Your task to perform on an android device: Add "razer nari" to the cart on amazon.com, then select checkout. Image 0: 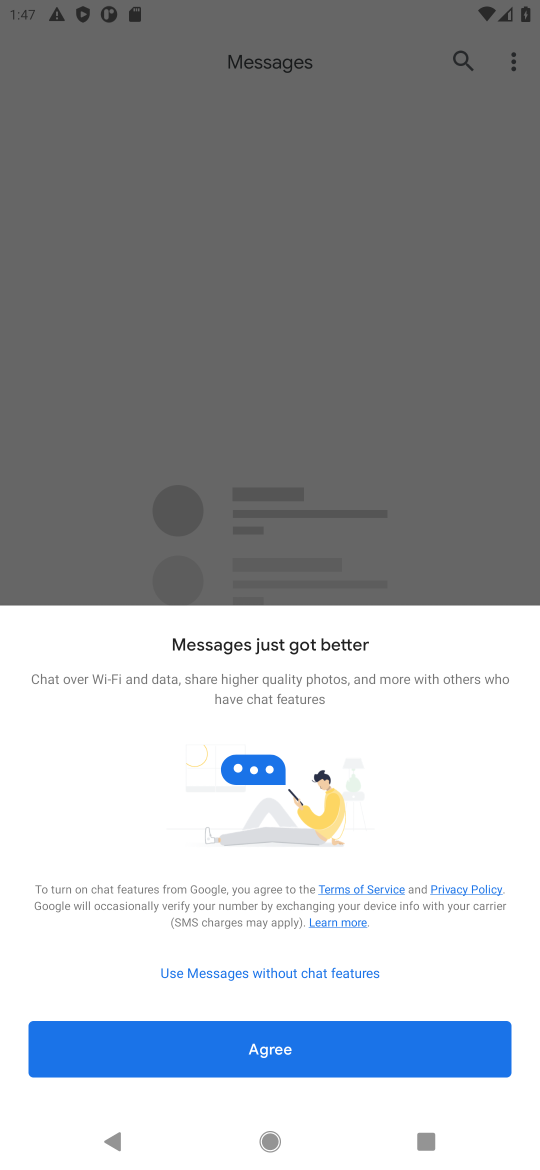
Step 0: press home button
Your task to perform on an android device: Add "razer nari" to the cart on amazon.com, then select checkout. Image 1: 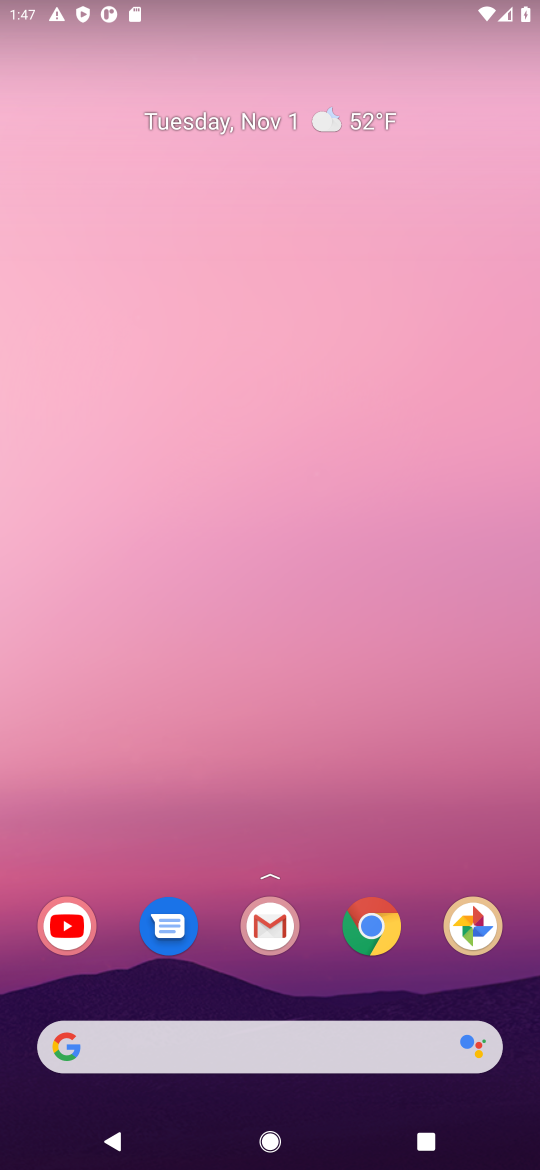
Step 1: click (369, 947)
Your task to perform on an android device: Add "razer nari" to the cart on amazon.com, then select checkout. Image 2: 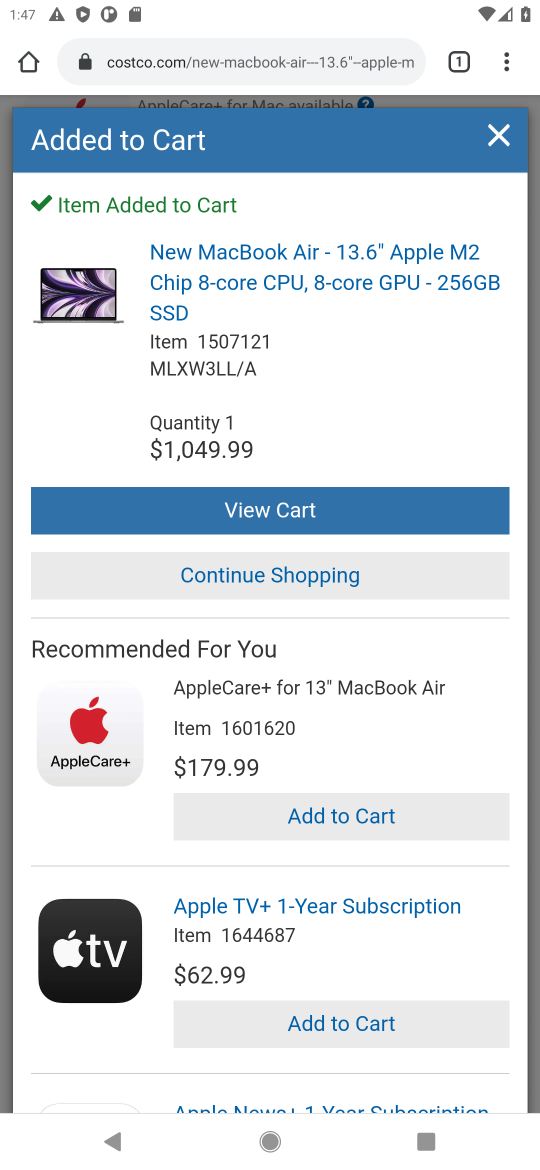
Step 2: click (272, 68)
Your task to perform on an android device: Add "razer nari" to the cart on amazon.com, then select checkout. Image 3: 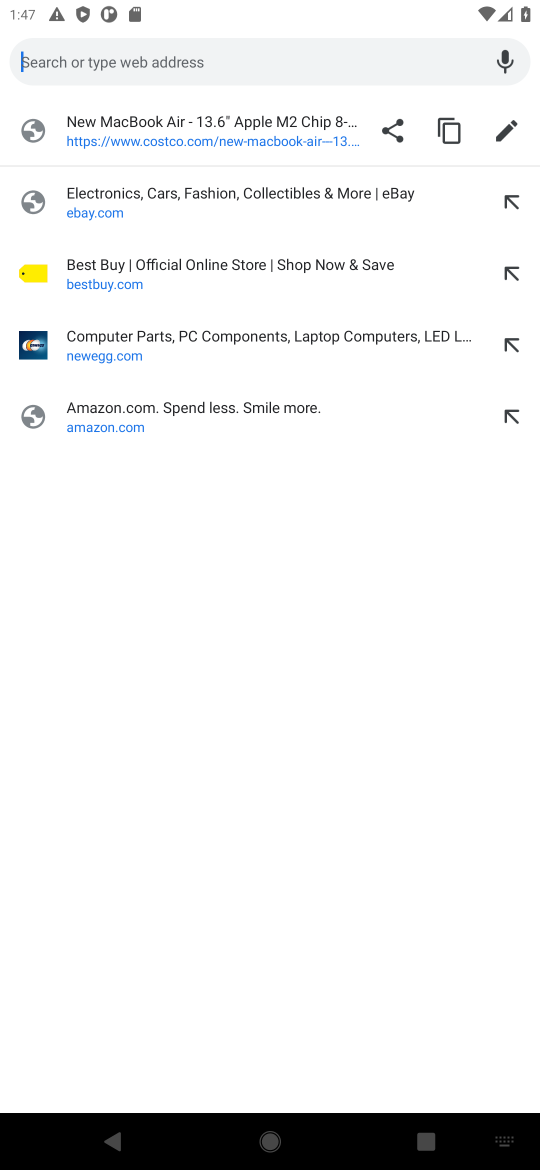
Step 3: type "amazon.com"
Your task to perform on an android device: Add "razer nari" to the cart on amazon.com, then select checkout. Image 4: 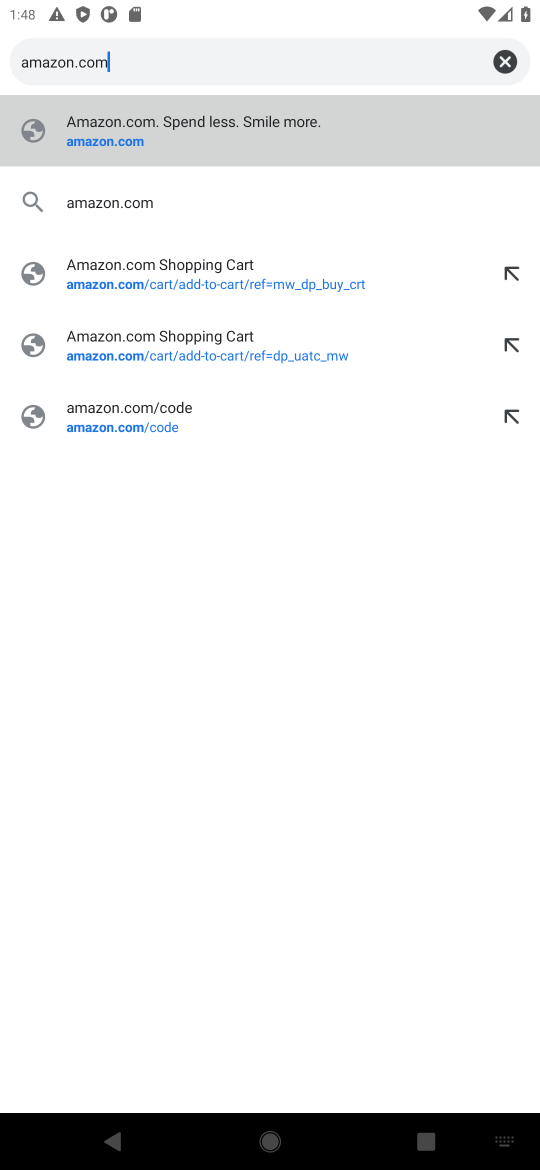
Step 4: click (250, 149)
Your task to perform on an android device: Add "razer nari" to the cart on amazon.com, then select checkout. Image 5: 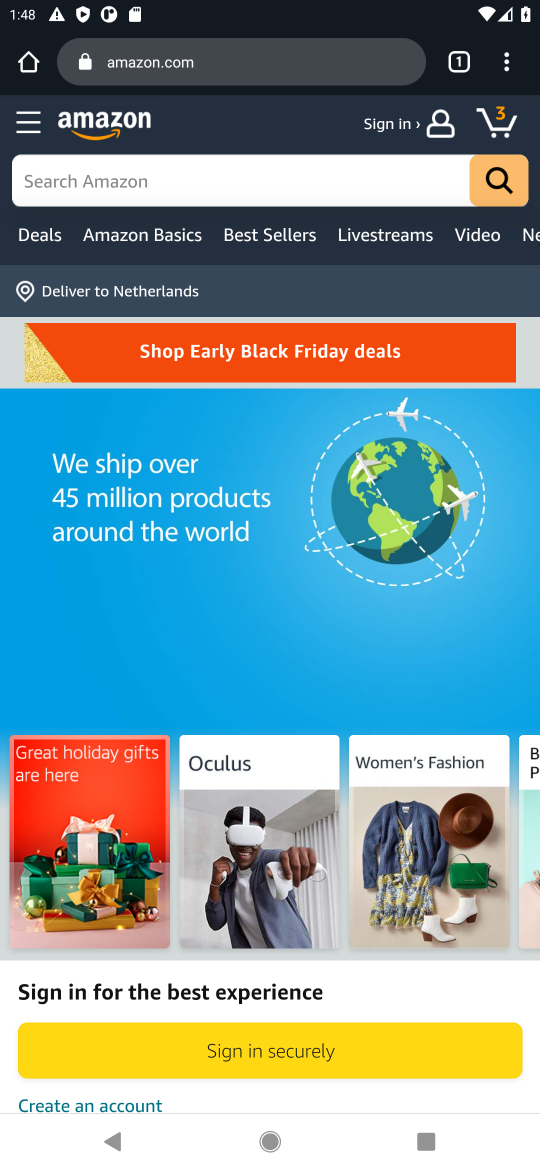
Step 5: click (276, 182)
Your task to perform on an android device: Add "razer nari" to the cart on amazon.com, then select checkout. Image 6: 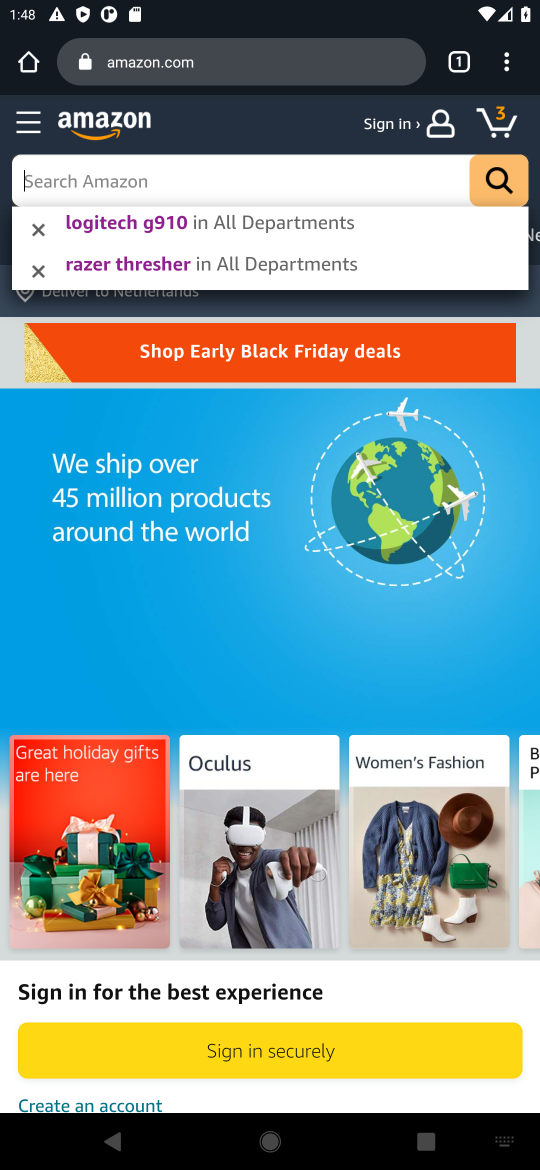
Step 6: type "razer nari"
Your task to perform on an android device: Add "razer nari" to the cart on amazon.com, then select checkout. Image 7: 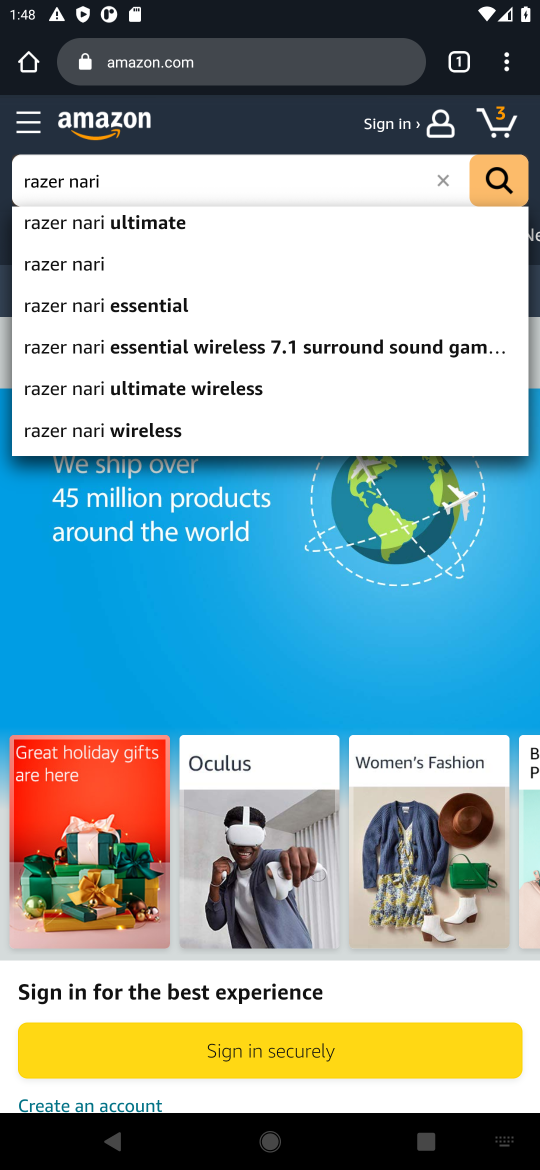
Step 7: press enter
Your task to perform on an android device: Add "razer nari" to the cart on amazon.com, then select checkout. Image 8: 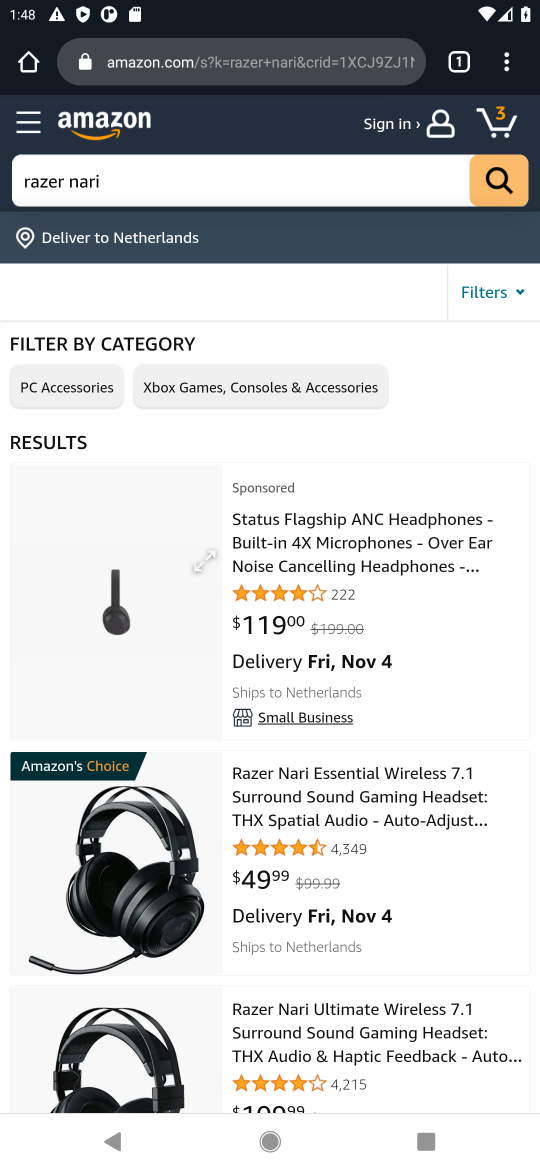
Step 8: click (147, 862)
Your task to perform on an android device: Add "razer nari" to the cart on amazon.com, then select checkout. Image 9: 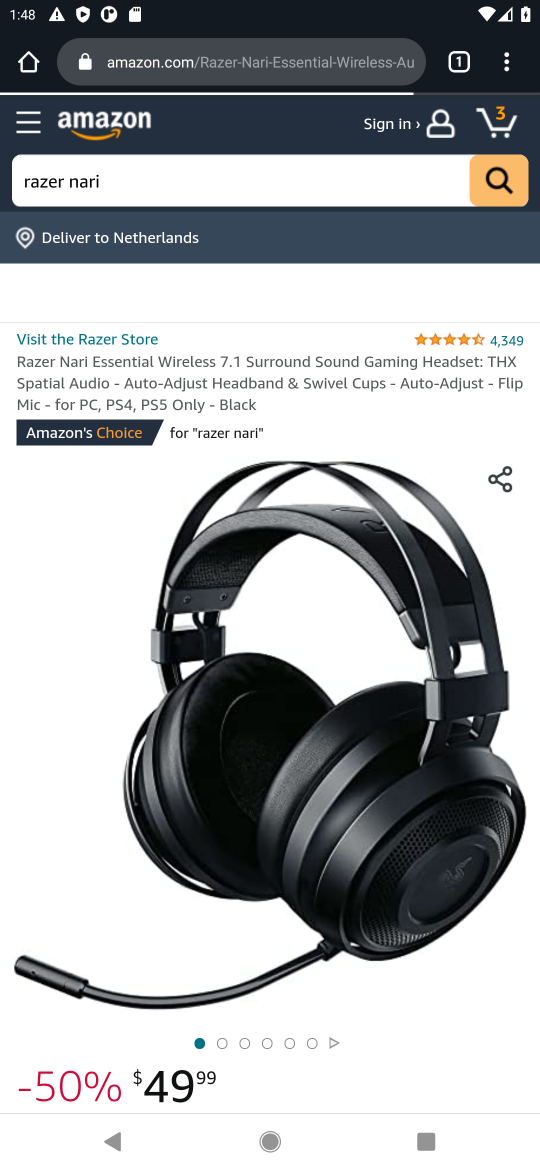
Step 9: drag from (357, 982) to (236, 201)
Your task to perform on an android device: Add "razer nari" to the cart on amazon.com, then select checkout. Image 10: 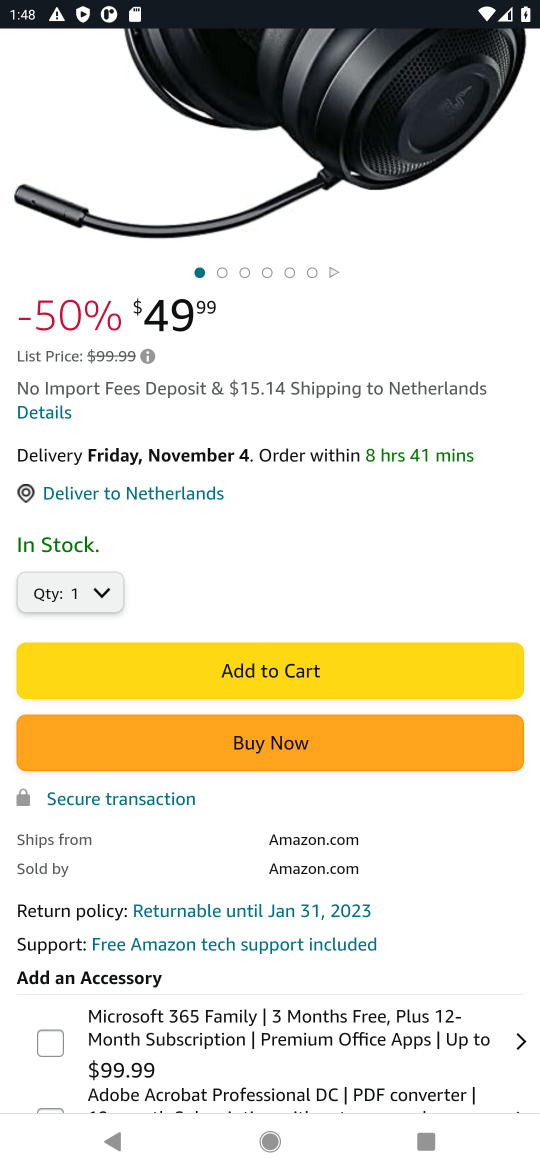
Step 10: click (294, 676)
Your task to perform on an android device: Add "razer nari" to the cart on amazon.com, then select checkout. Image 11: 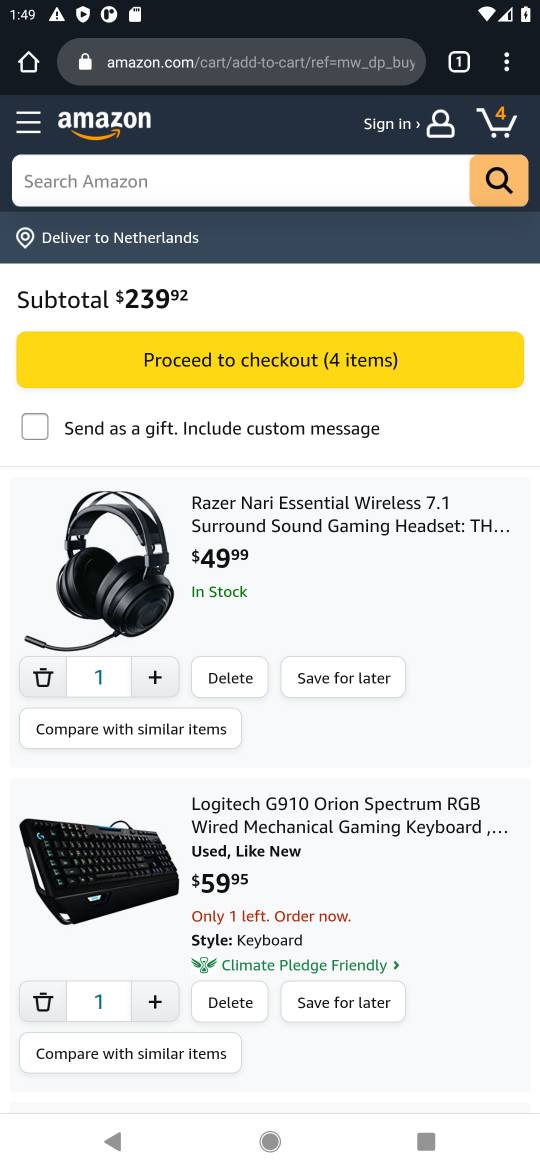
Step 11: click (241, 362)
Your task to perform on an android device: Add "razer nari" to the cart on amazon.com, then select checkout. Image 12: 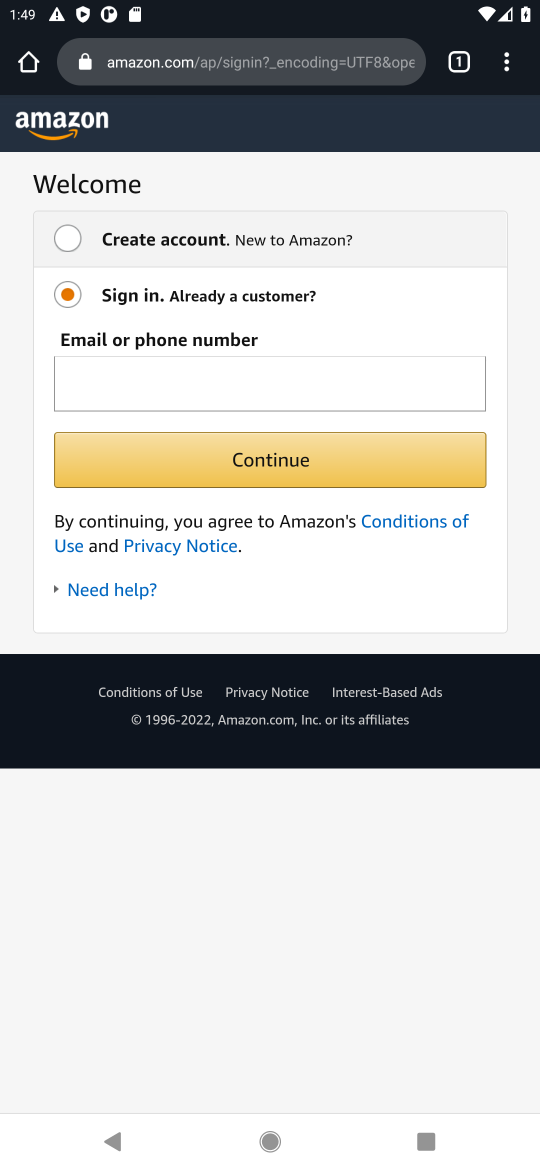
Step 12: task complete